Your task to perform on an android device: open device folders in google photos Image 0: 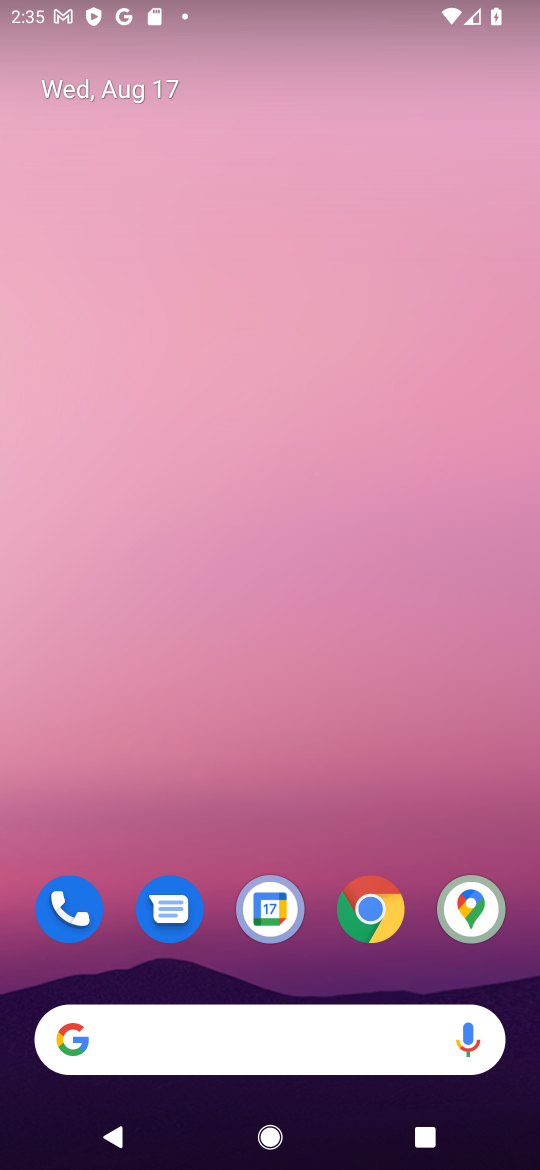
Step 0: drag from (235, 757) to (234, 87)
Your task to perform on an android device: open device folders in google photos Image 1: 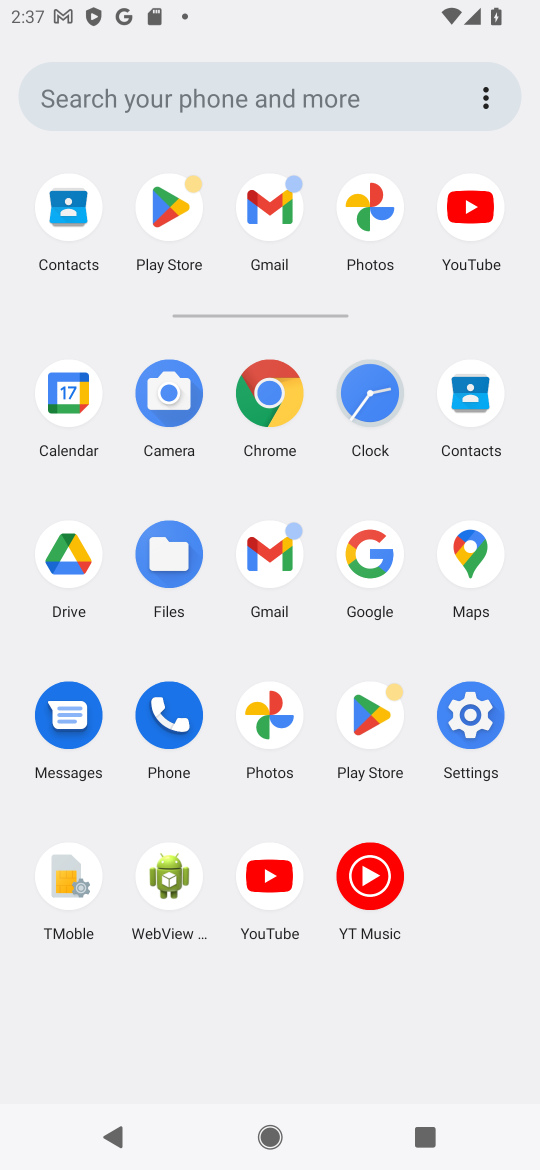
Step 1: click (468, 740)
Your task to perform on an android device: open device folders in google photos Image 2: 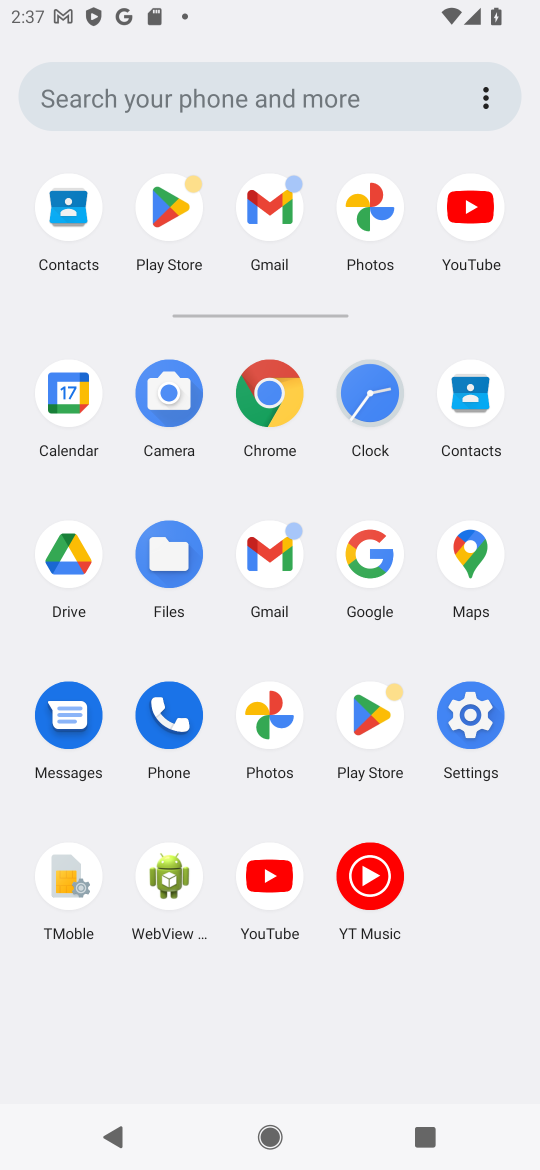
Step 2: task complete